Your task to perform on an android device: Open the phone app and click the voicemail tab. Image 0: 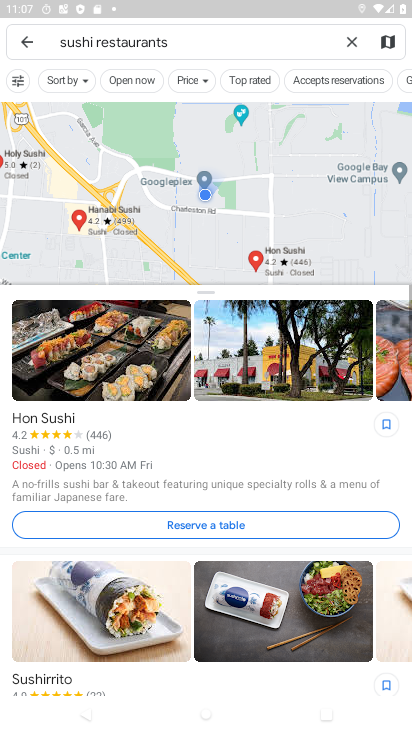
Step 0: press home button
Your task to perform on an android device: Open the phone app and click the voicemail tab. Image 1: 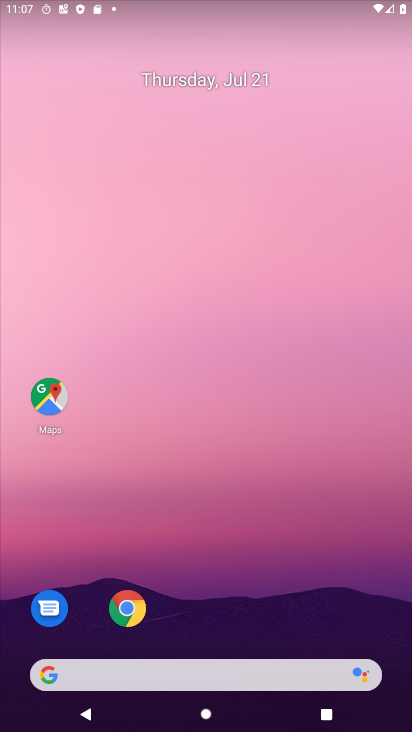
Step 1: drag from (190, 636) to (165, 150)
Your task to perform on an android device: Open the phone app and click the voicemail tab. Image 2: 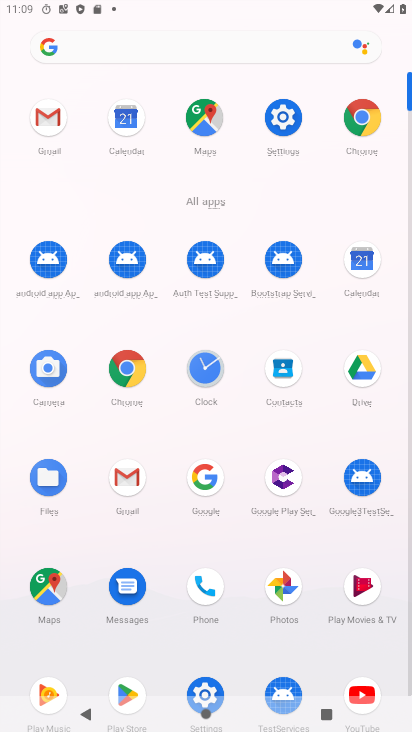
Step 2: click (199, 613)
Your task to perform on an android device: Open the phone app and click the voicemail tab. Image 3: 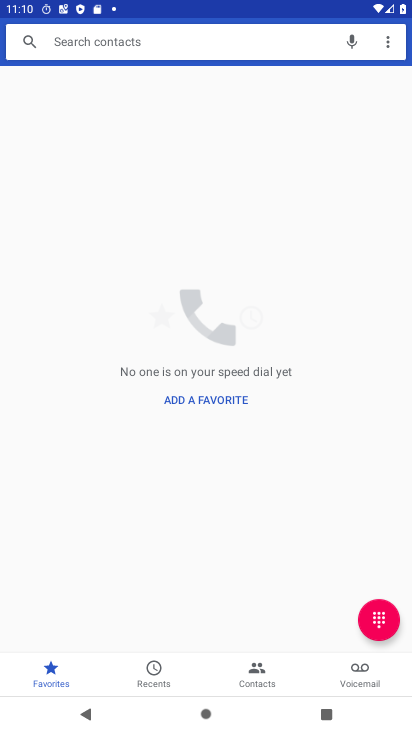
Step 3: click (367, 668)
Your task to perform on an android device: Open the phone app and click the voicemail tab. Image 4: 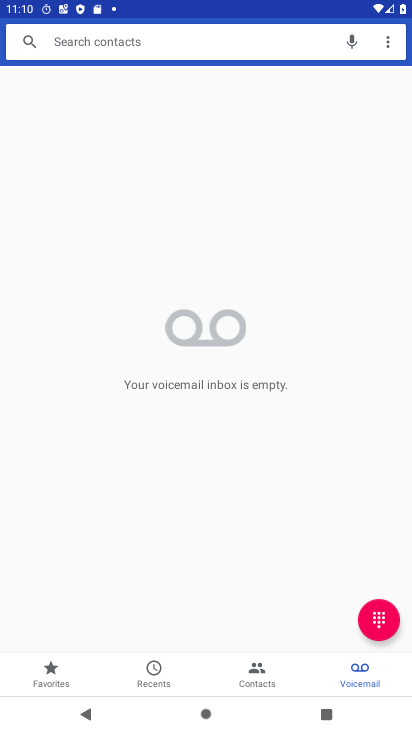
Step 4: task complete